Your task to perform on an android device: Go to eBay Image 0: 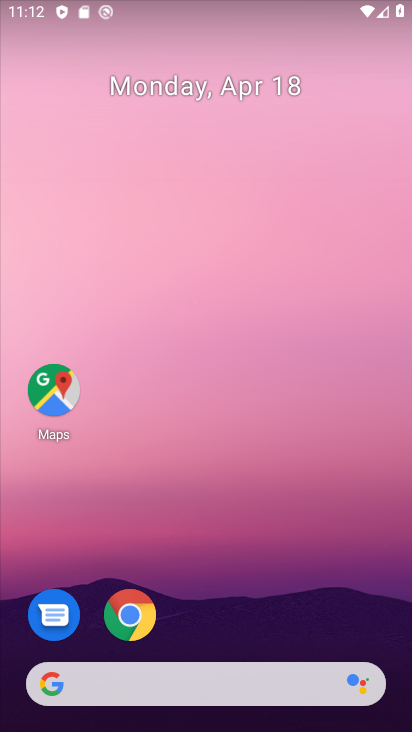
Step 0: drag from (369, 621) to (370, 93)
Your task to perform on an android device: Go to eBay Image 1: 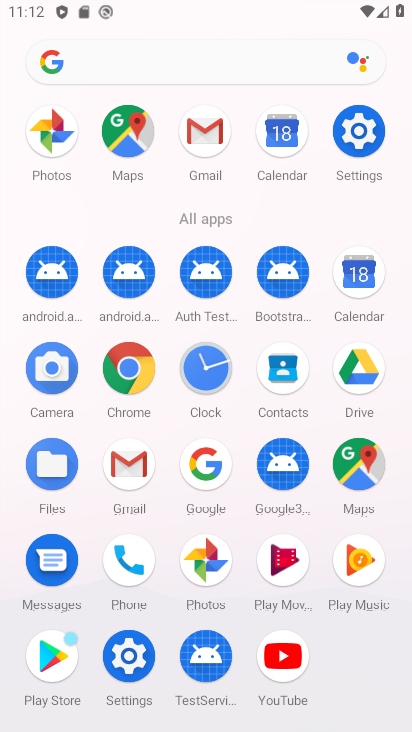
Step 1: click (115, 378)
Your task to perform on an android device: Go to eBay Image 2: 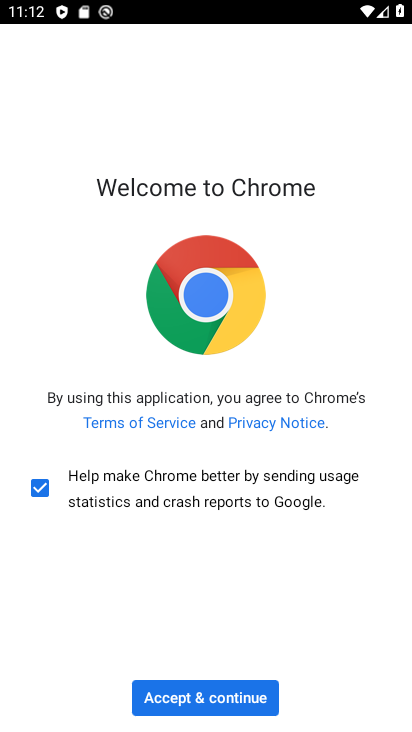
Step 2: click (199, 703)
Your task to perform on an android device: Go to eBay Image 3: 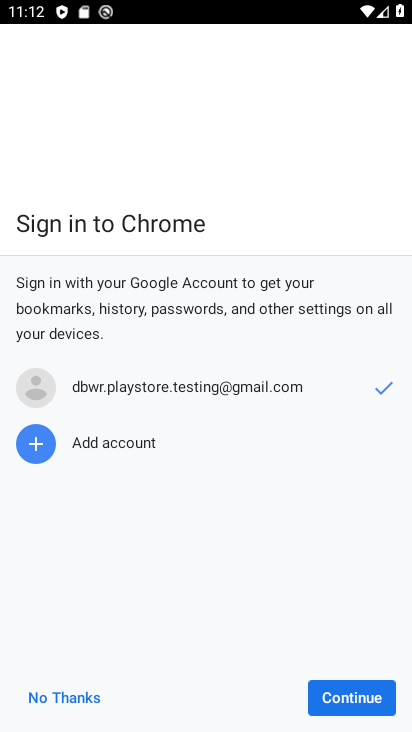
Step 3: click (332, 706)
Your task to perform on an android device: Go to eBay Image 4: 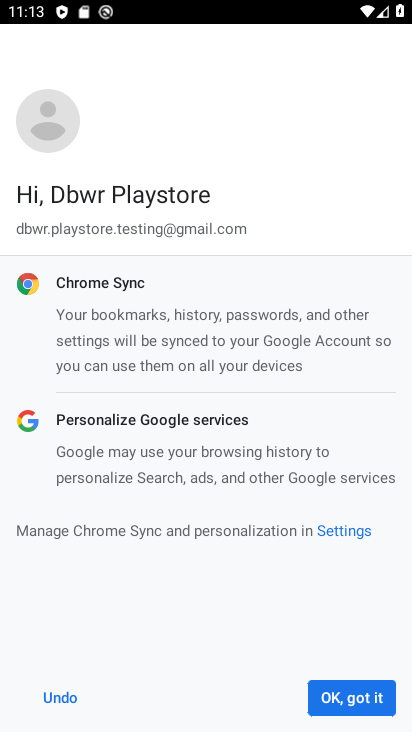
Step 4: click (342, 708)
Your task to perform on an android device: Go to eBay Image 5: 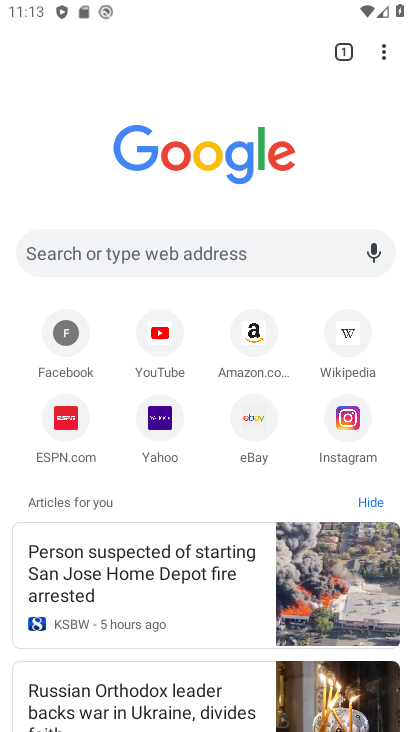
Step 5: click (252, 420)
Your task to perform on an android device: Go to eBay Image 6: 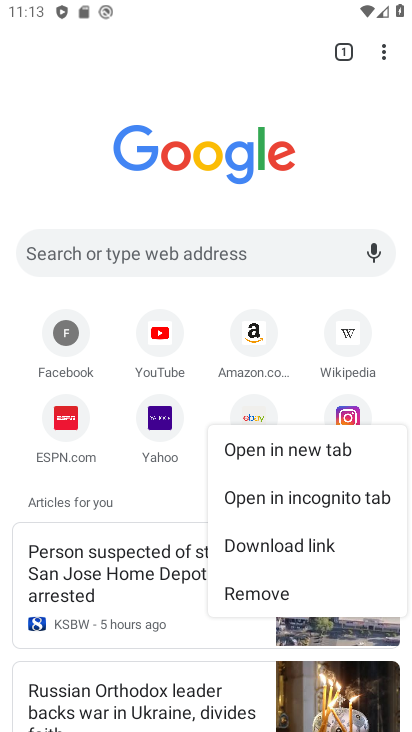
Step 6: click (250, 406)
Your task to perform on an android device: Go to eBay Image 7: 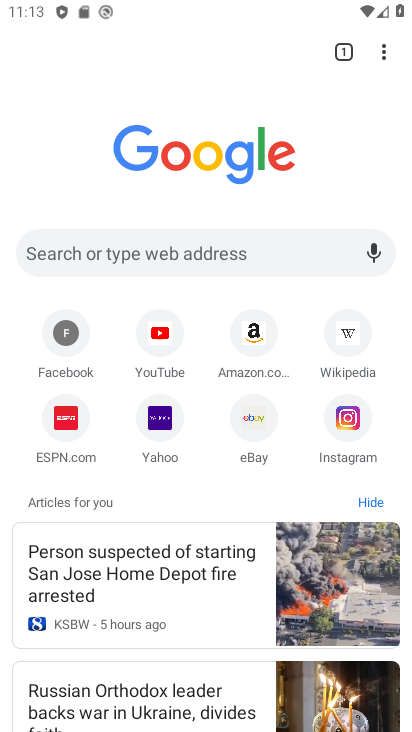
Step 7: click (249, 418)
Your task to perform on an android device: Go to eBay Image 8: 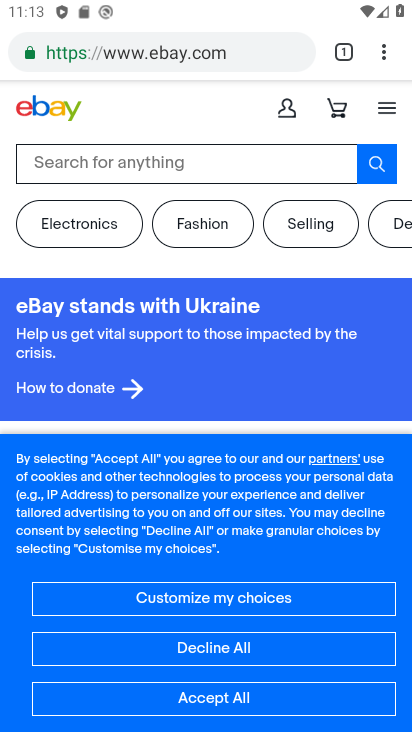
Step 8: task complete